Your task to perform on an android device: Open Google Chrome and click the shortcut for Amazon.com Image 0: 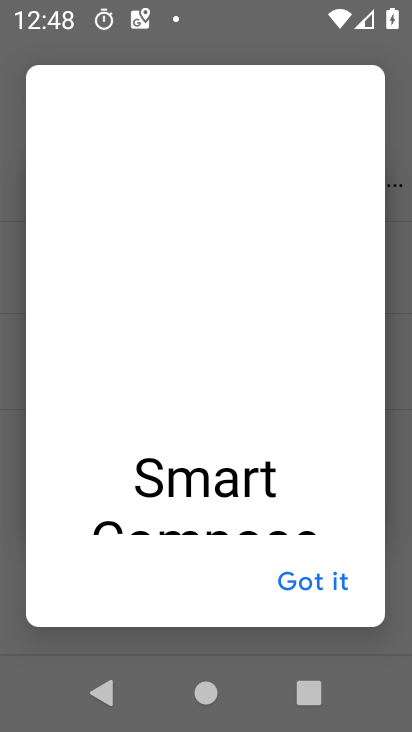
Step 0: press home button
Your task to perform on an android device: Open Google Chrome and click the shortcut for Amazon.com Image 1: 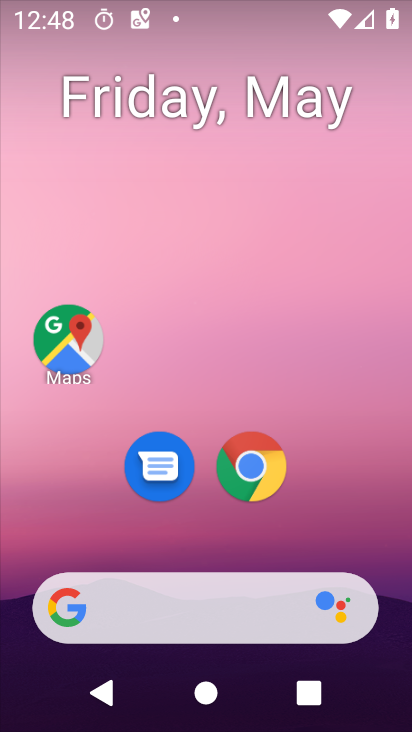
Step 1: click (250, 468)
Your task to perform on an android device: Open Google Chrome and click the shortcut for Amazon.com Image 2: 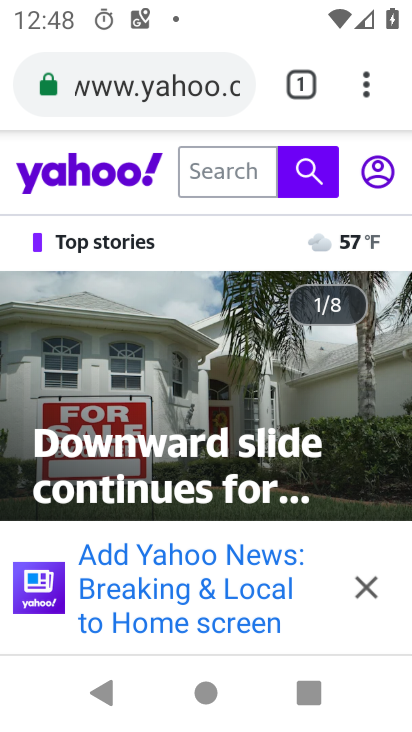
Step 2: press back button
Your task to perform on an android device: Open Google Chrome and click the shortcut for Amazon.com Image 3: 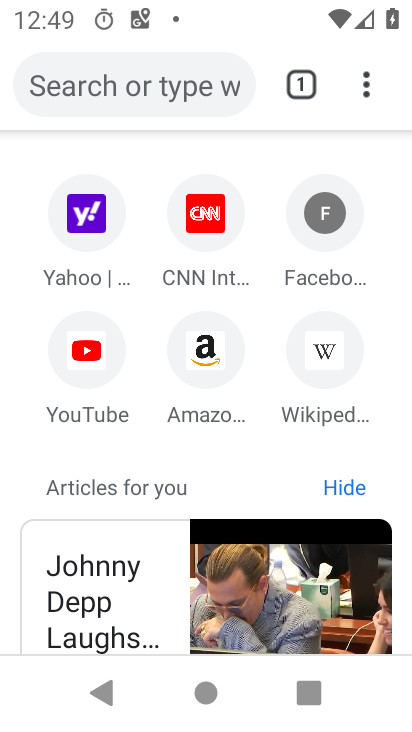
Step 3: click (211, 359)
Your task to perform on an android device: Open Google Chrome and click the shortcut for Amazon.com Image 4: 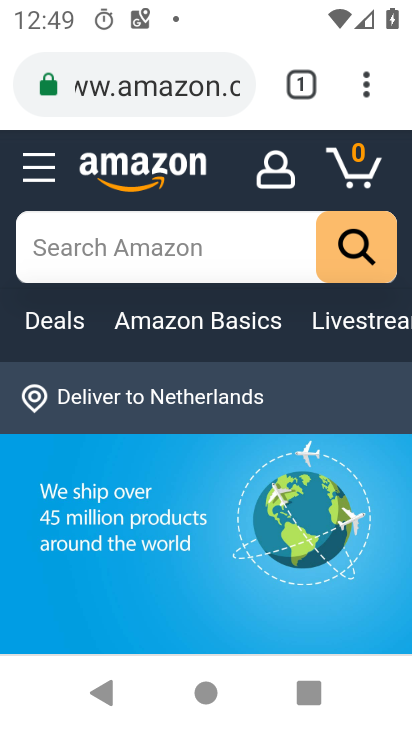
Step 4: task complete